Your task to perform on an android device: set an alarm Image 0: 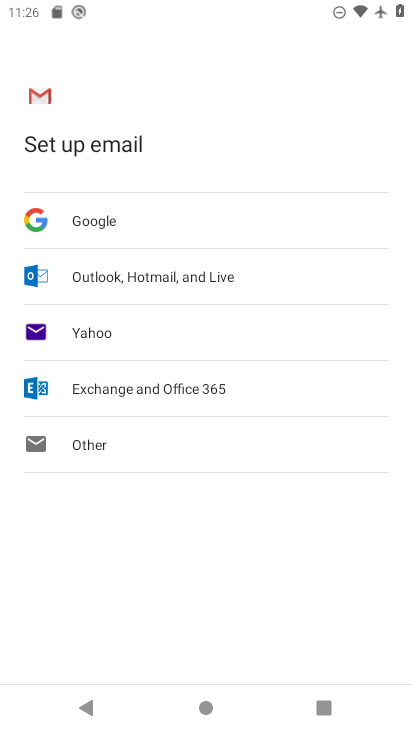
Step 0: press home button
Your task to perform on an android device: set an alarm Image 1: 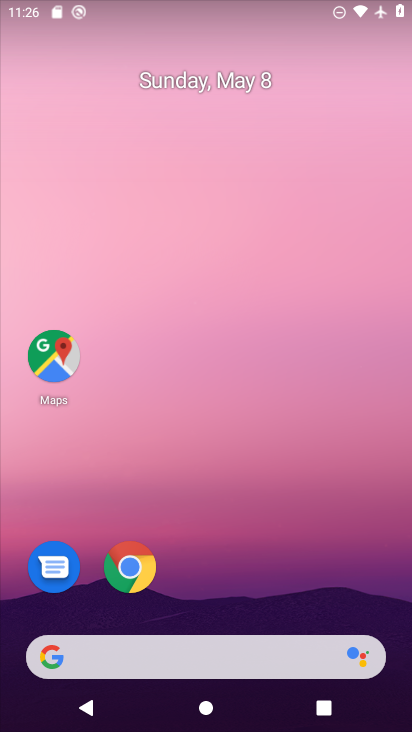
Step 1: drag from (255, 577) to (284, 260)
Your task to perform on an android device: set an alarm Image 2: 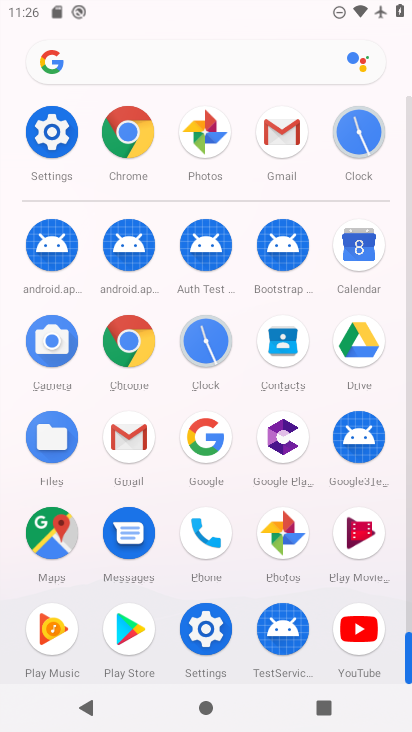
Step 2: click (208, 361)
Your task to perform on an android device: set an alarm Image 3: 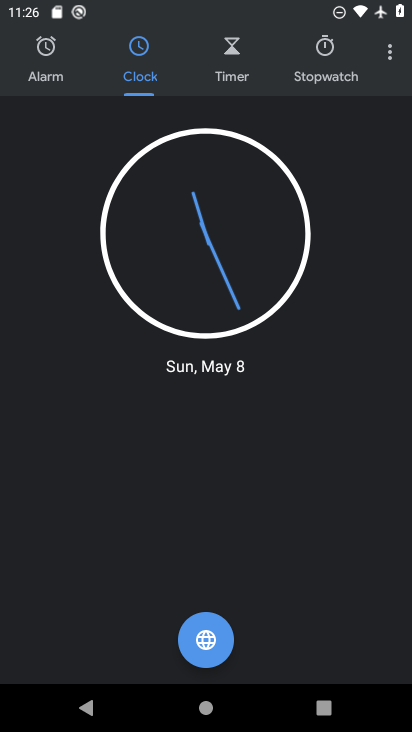
Step 3: click (48, 87)
Your task to perform on an android device: set an alarm Image 4: 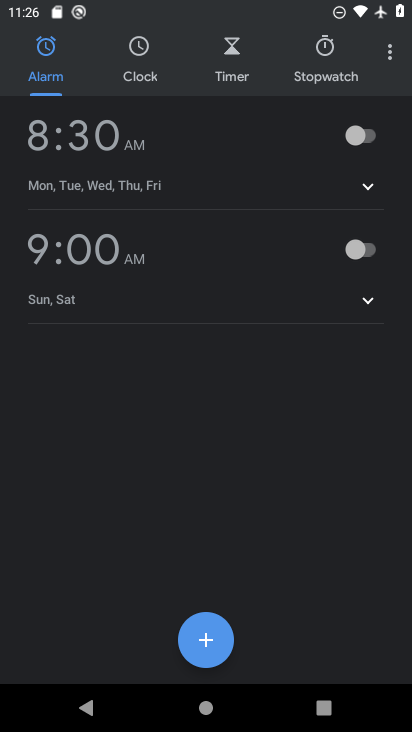
Step 4: click (368, 136)
Your task to perform on an android device: set an alarm Image 5: 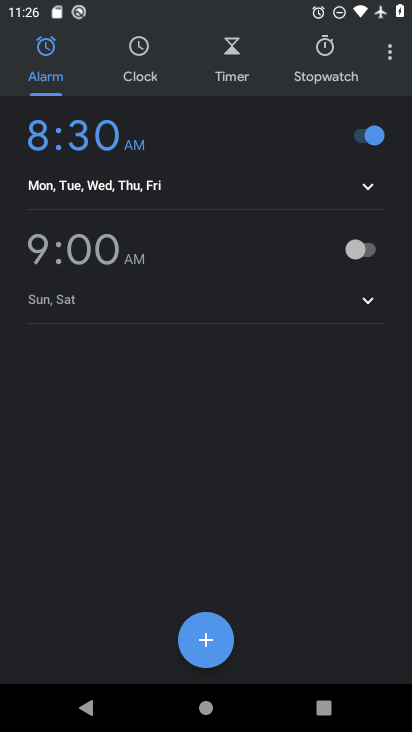
Step 5: task complete